Your task to perform on an android device: When is my next appointment? Image 0: 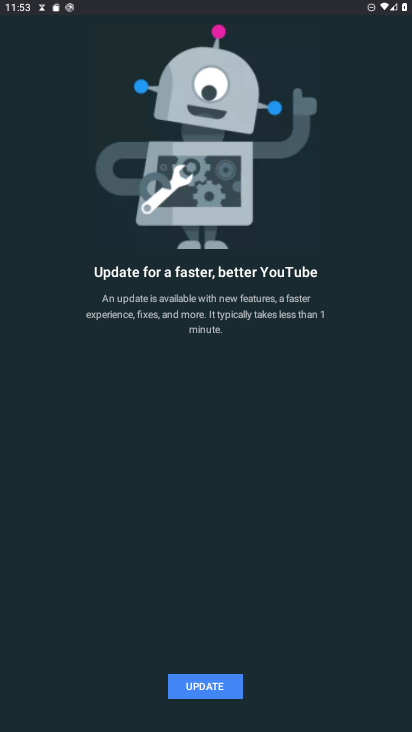
Step 0: press home button
Your task to perform on an android device: When is my next appointment? Image 1: 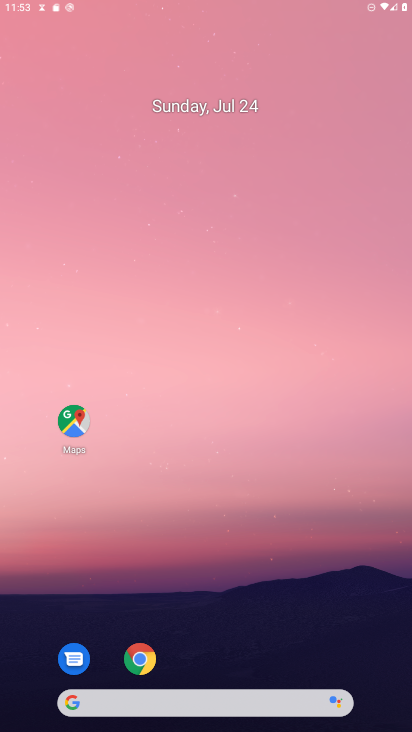
Step 1: drag from (247, 667) to (201, 251)
Your task to perform on an android device: When is my next appointment? Image 2: 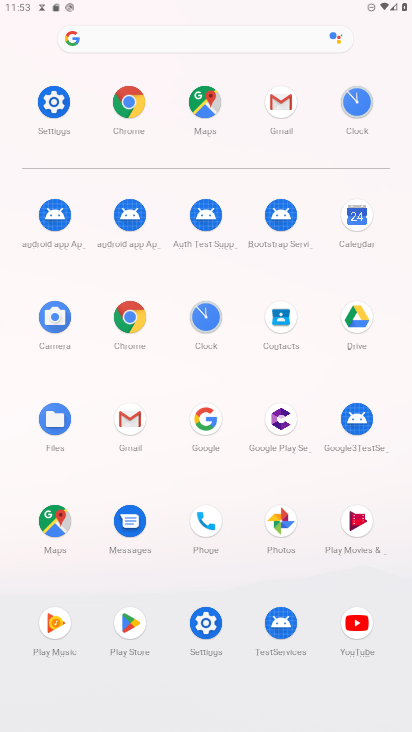
Step 2: click (356, 216)
Your task to perform on an android device: When is my next appointment? Image 3: 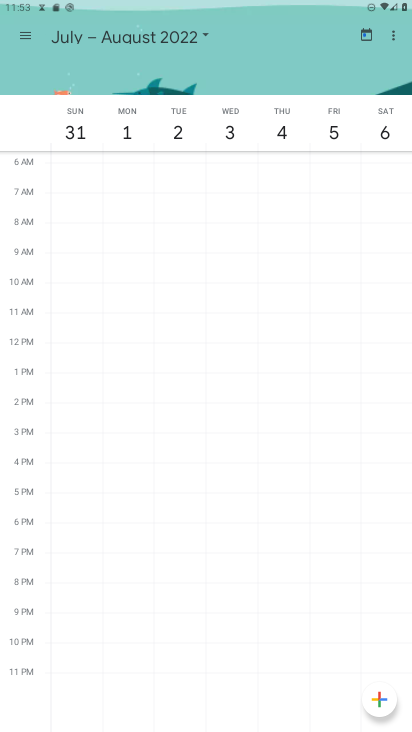
Step 3: drag from (74, 129) to (353, 142)
Your task to perform on an android device: When is my next appointment? Image 4: 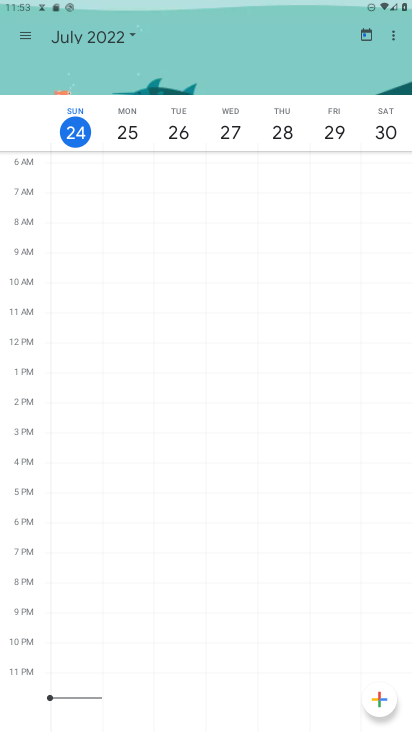
Step 4: click (172, 128)
Your task to perform on an android device: When is my next appointment? Image 5: 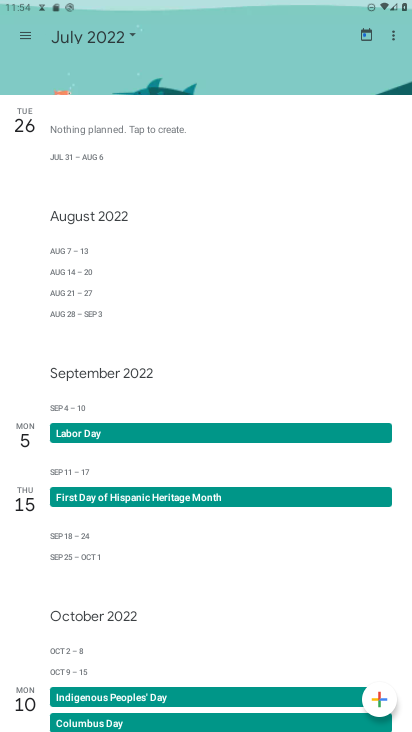
Step 5: task complete